Your task to perform on an android device: add a label to a message in the gmail app Image 0: 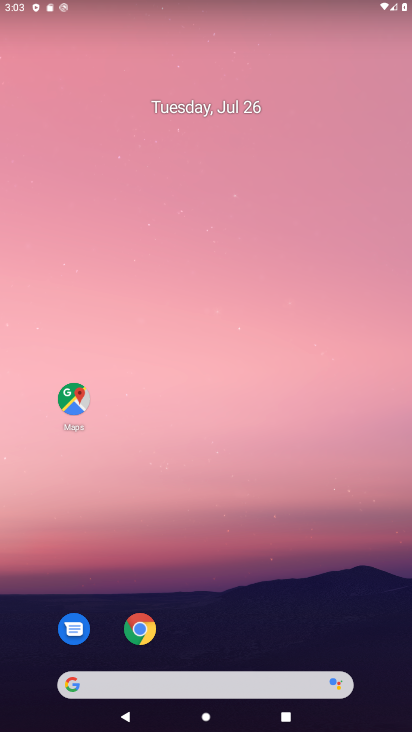
Step 0: press home button
Your task to perform on an android device: add a label to a message in the gmail app Image 1: 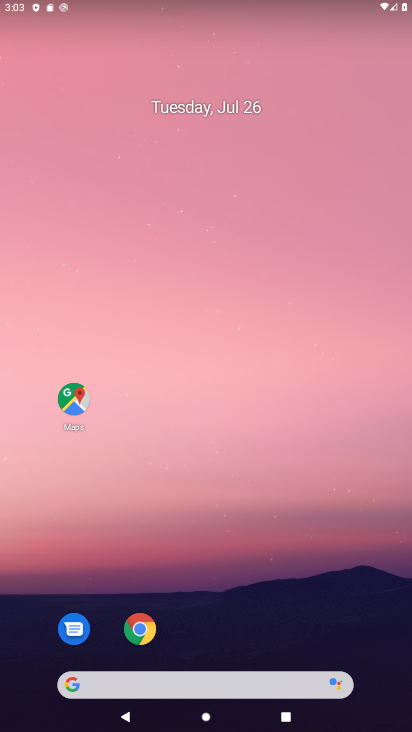
Step 1: drag from (248, 651) to (108, 132)
Your task to perform on an android device: add a label to a message in the gmail app Image 2: 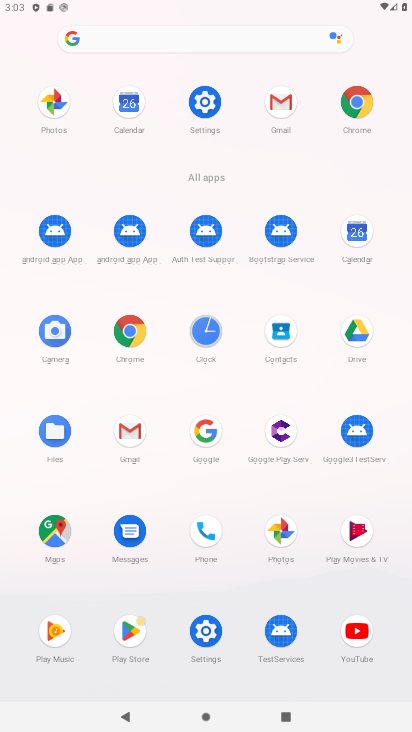
Step 2: click (283, 113)
Your task to perform on an android device: add a label to a message in the gmail app Image 3: 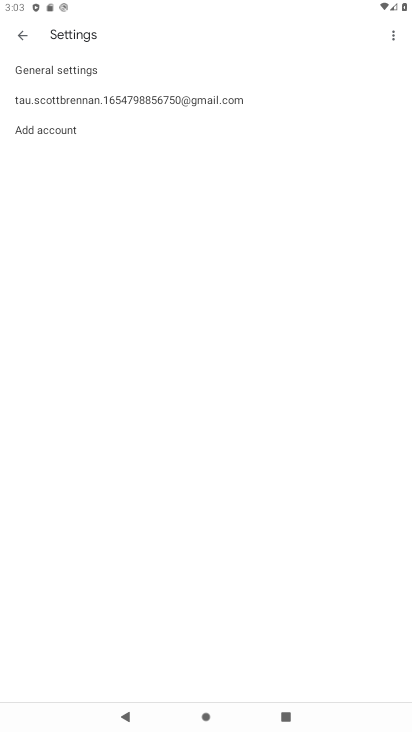
Step 3: click (28, 43)
Your task to perform on an android device: add a label to a message in the gmail app Image 4: 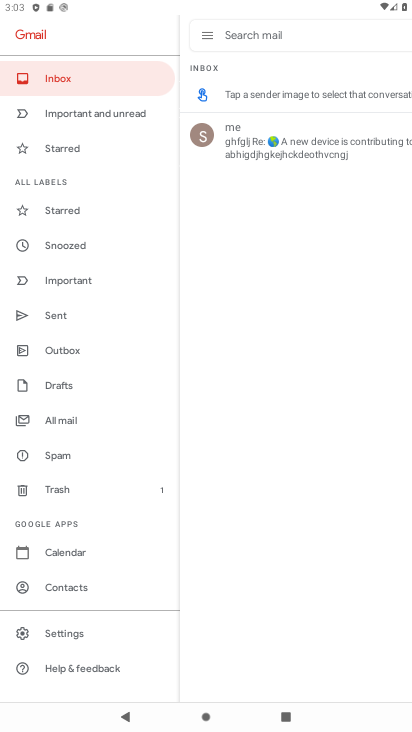
Step 4: click (203, 38)
Your task to perform on an android device: add a label to a message in the gmail app Image 5: 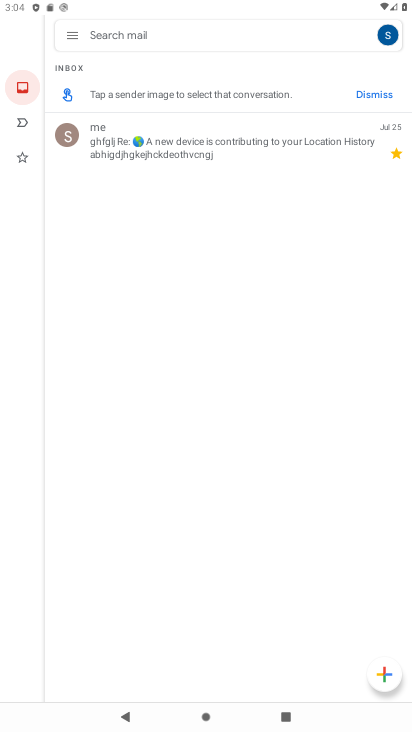
Step 5: task complete